Your task to perform on an android device: Go to Amazon Image 0: 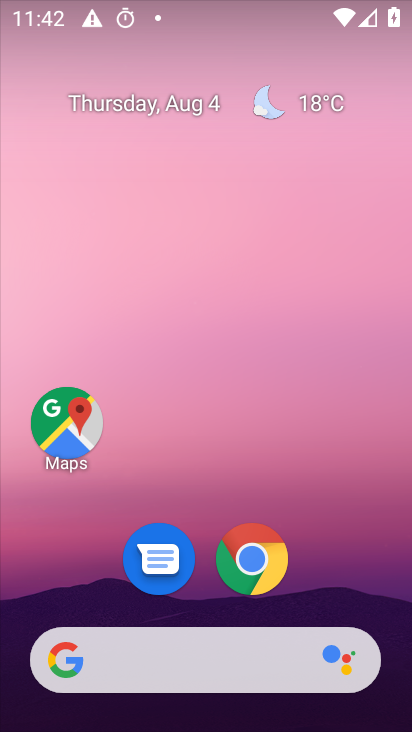
Step 0: click (157, 665)
Your task to perform on an android device: Go to Amazon Image 1: 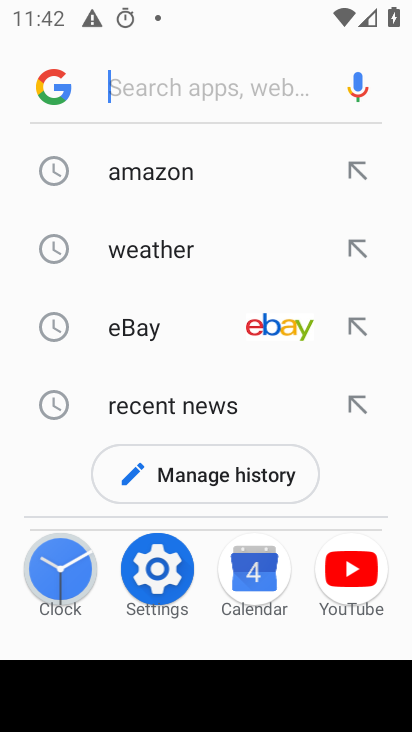
Step 1: click (161, 171)
Your task to perform on an android device: Go to Amazon Image 2: 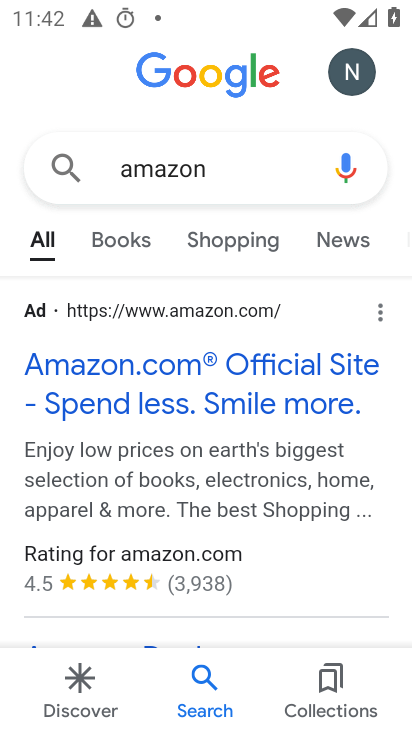
Step 2: task complete